Your task to perform on an android device: open chrome privacy settings Image 0: 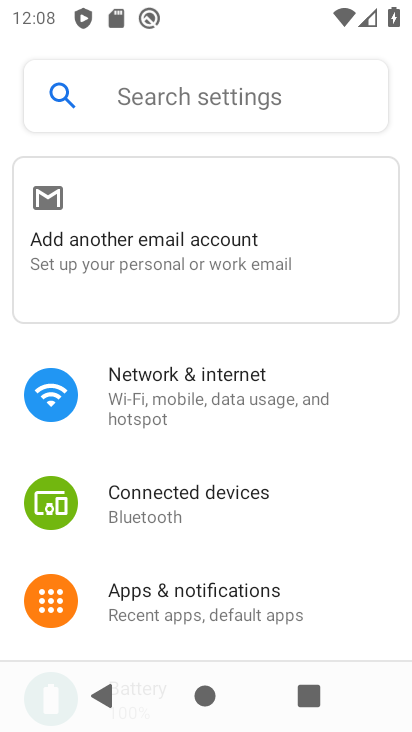
Step 0: press home button
Your task to perform on an android device: open chrome privacy settings Image 1: 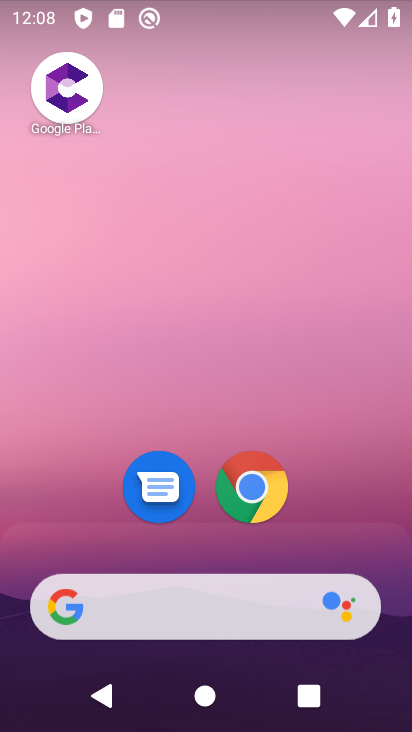
Step 1: click (261, 486)
Your task to perform on an android device: open chrome privacy settings Image 2: 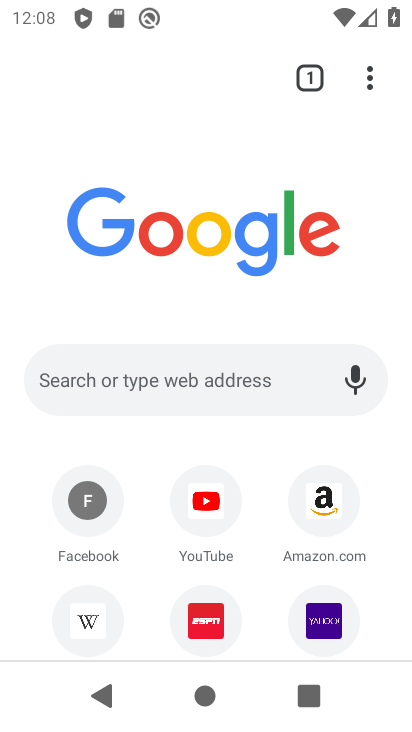
Step 2: drag from (367, 78) to (116, 550)
Your task to perform on an android device: open chrome privacy settings Image 3: 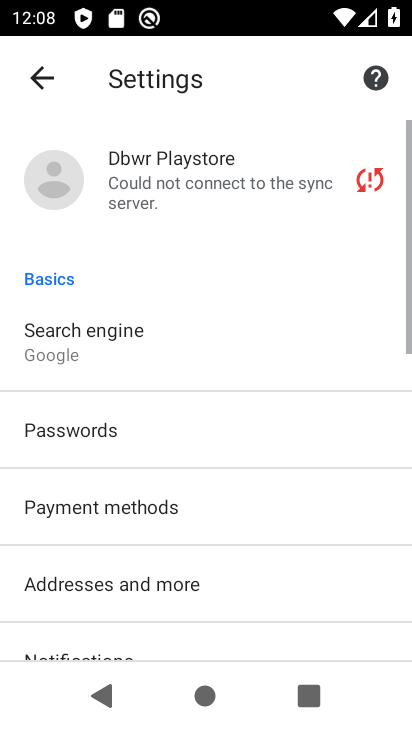
Step 3: drag from (154, 572) to (275, 121)
Your task to perform on an android device: open chrome privacy settings Image 4: 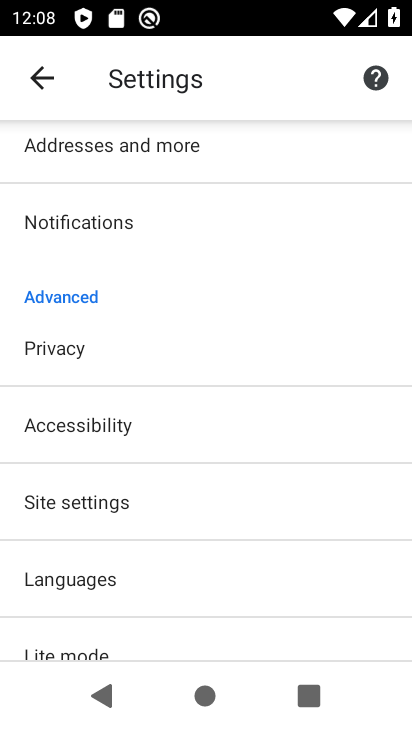
Step 4: click (66, 342)
Your task to perform on an android device: open chrome privacy settings Image 5: 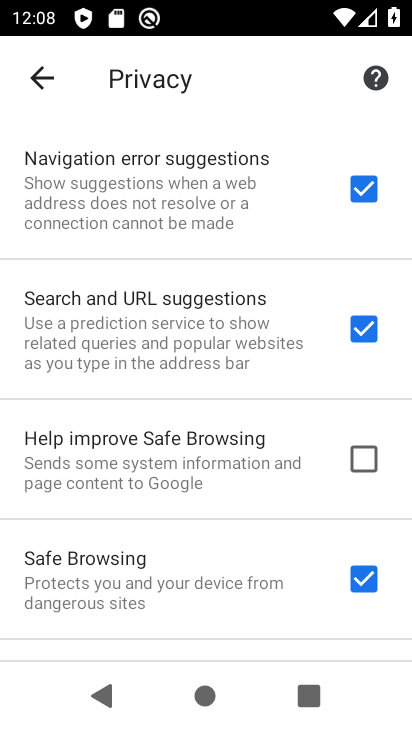
Step 5: task complete